Your task to perform on an android device: open the mobile data screen to see how much data has been used Image 0: 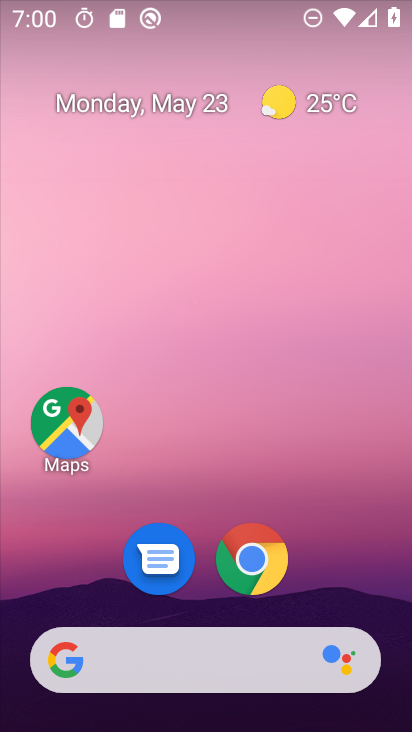
Step 0: drag from (394, 624) to (289, 87)
Your task to perform on an android device: open the mobile data screen to see how much data has been used Image 1: 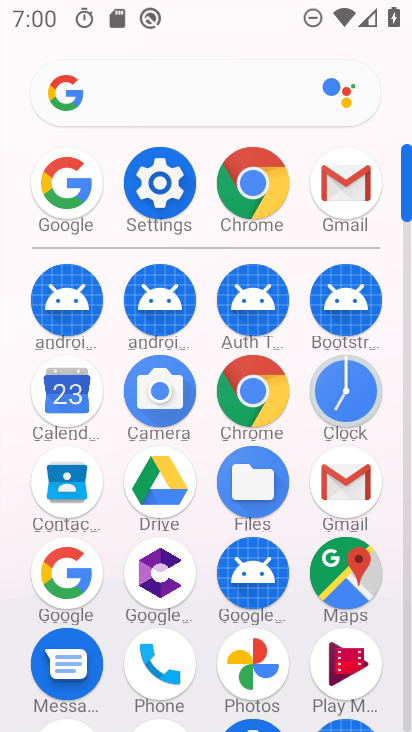
Step 1: click (169, 209)
Your task to perform on an android device: open the mobile data screen to see how much data has been used Image 2: 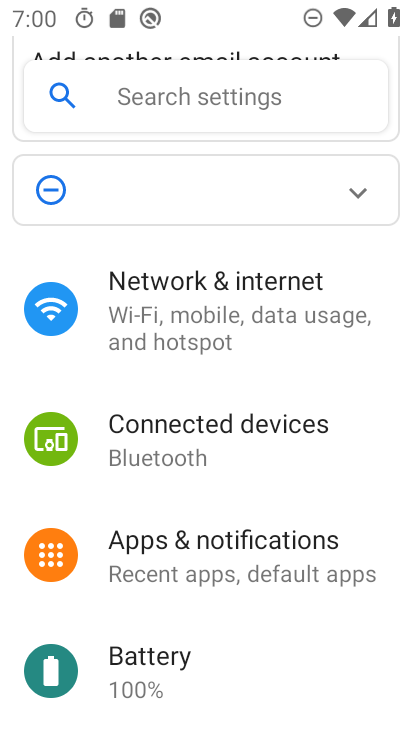
Step 2: click (143, 339)
Your task to perform on an android device: open the mobile data screen to see how much data has been used Image 3: 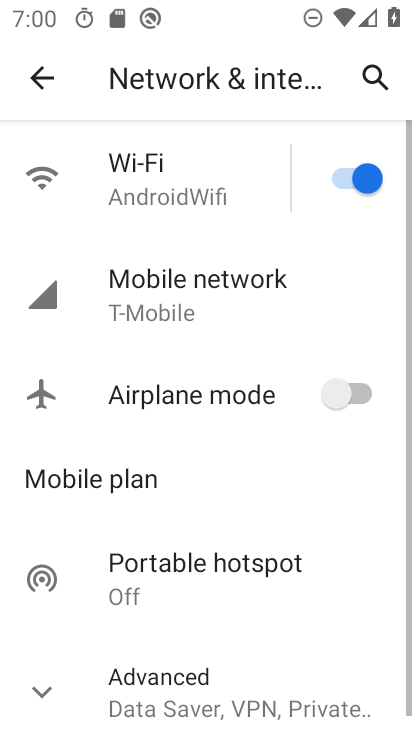
Step 3: click (146, 311)
Your task to perform on an android device: open the mobile data screen to see how much data has been used Image 4: 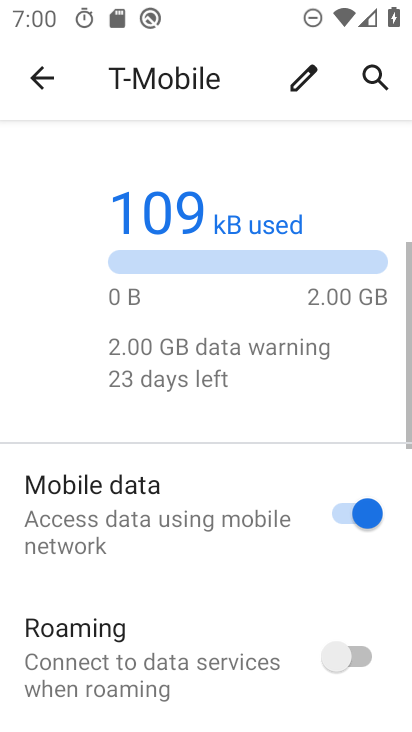
Step 4: drag from (133, 695) to (124, 253)
Your task to perform on an android device: open the mobile data screen to see how much data has been used Image 5: 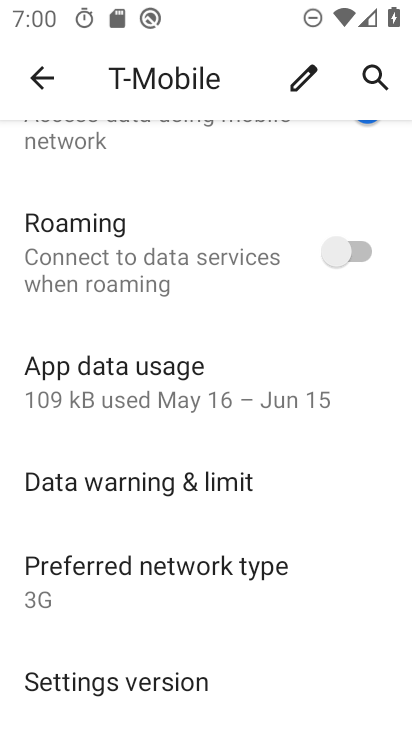
Step 5: click (141, 388)
Your task to perform on an android device: open the mobile data screen to see how much data has been used Image 6: 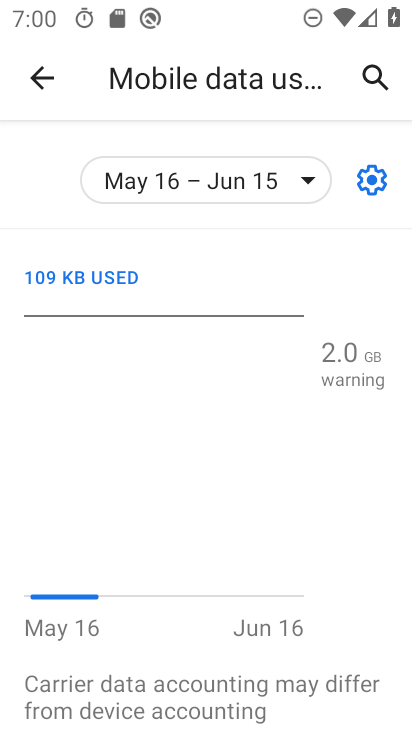
Step 6: task complete